Your task to perform on an android device: toggle airplane mode Image 0: 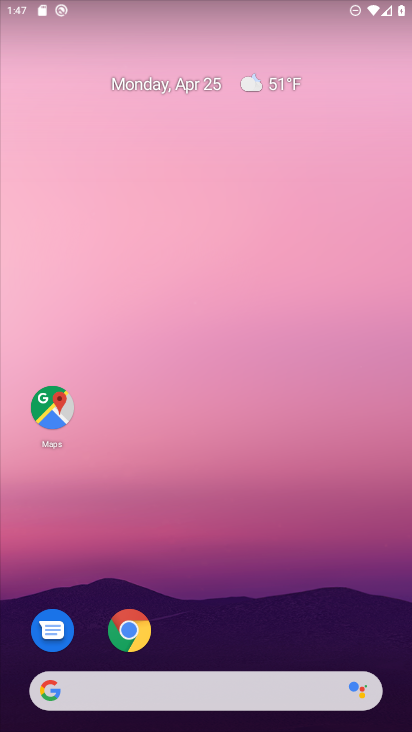
Step 0: drag from (338, 128) to (321, 49)
Your task to perform on an android device: toggle airplane mode Image 1: 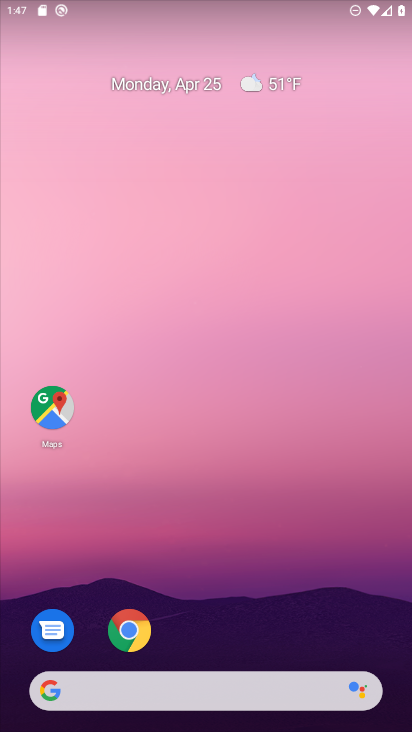
Step 1: drag from (361, 576) to (327, 76)
Your task to perform on an android device: toggle airplane mode Image 2: 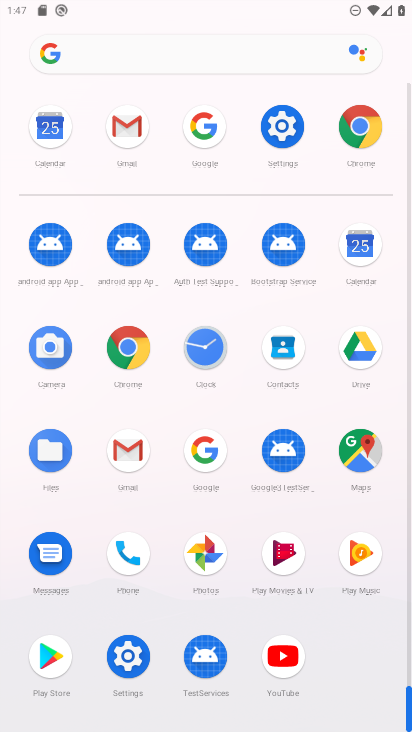
Step 2: click (290, 135)
Your task to perform on an android device: toggle airplane mode Image 3: 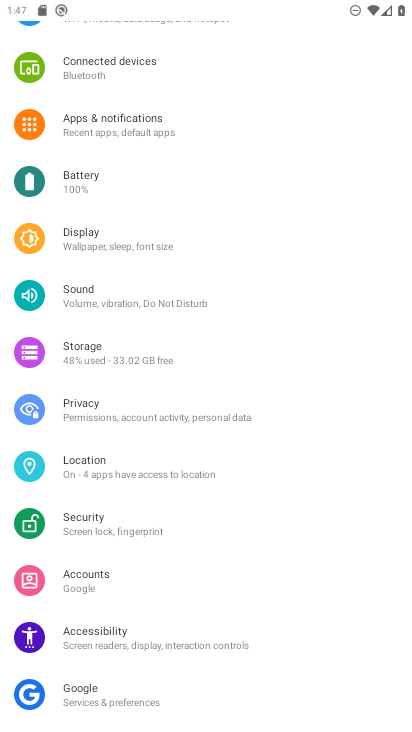
Step 3: drag from (123, 243) to (156, 564)
Your task to perform on an android device: toggle airplane mode Image 4: 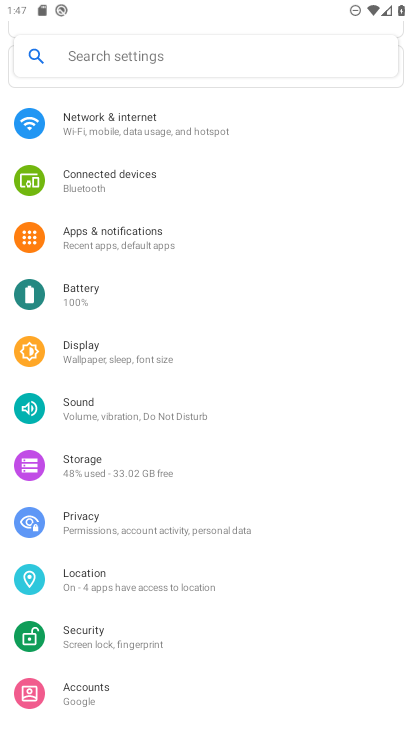
Step 4: drag from (240, 222) to (193, 506)
Your task to perform on an android device: toggle airplane mode Image 5: 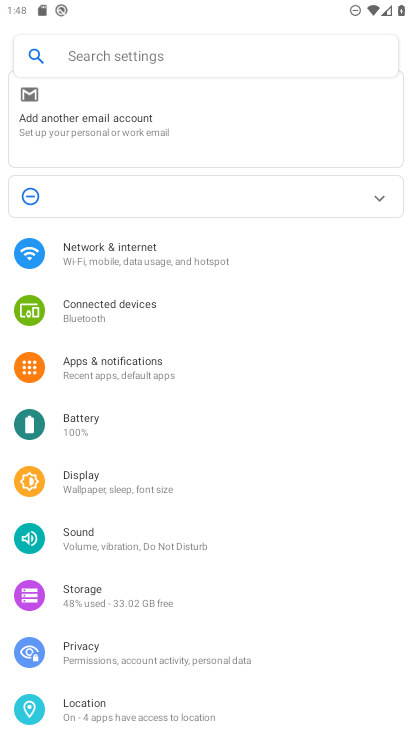
Step 5: click (166, 256)
Your task to perform on an android device: toggle airplane mode Image 6: 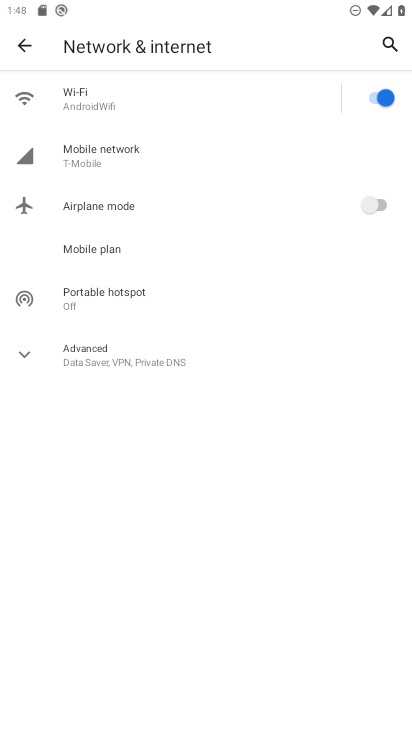
Step 6: click (375, 196)
Your task to perform on an android device: toggle airplane mode Image 7: 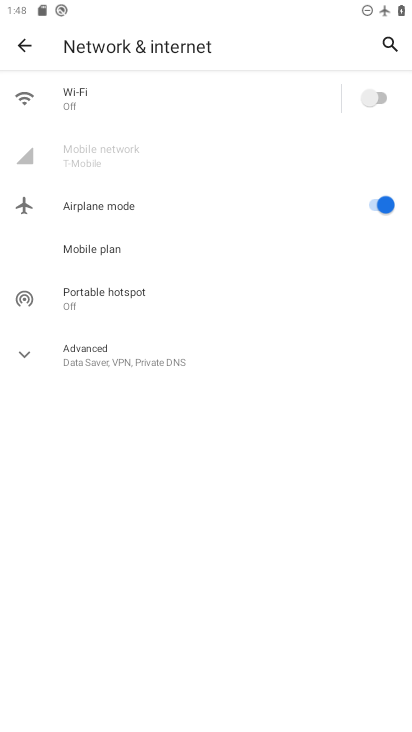
Step 7: task complete